Your task to perform on an android device: open app "LiveIn - Share Your Moment" Image 0: 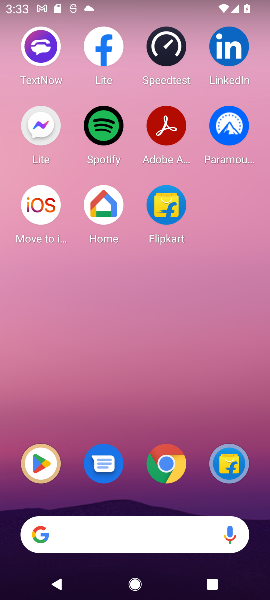
Step 0: drag from (108, 536) to (113, 63)
Your task to perform on an android device: open app "LiveIn - Share Your Moment" Image 1: 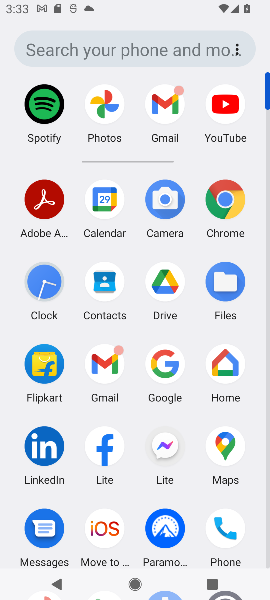
Step 1: drag from (136, 462) to (137, 166)
Your task to perform on an android device: open app "LiveIn - Share Your Moment" Image 2: 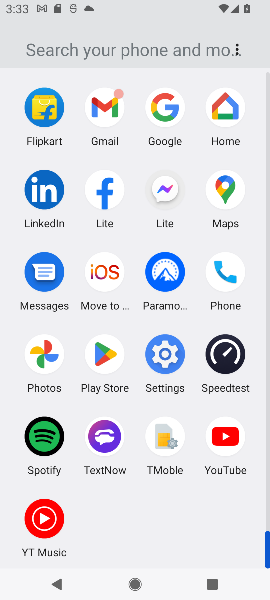
Step 2: click (107, 356)
Your task to perform on an android device: open app "LiveIn - Share Your Moment" Image 3: 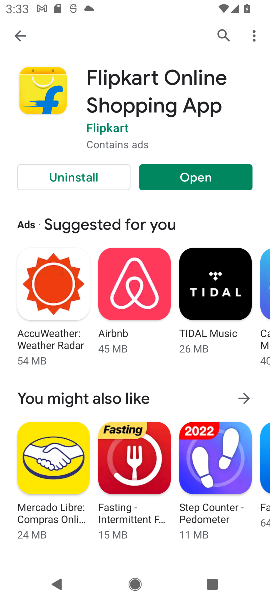
Step 3: click (221, 32)
Your task to perform on an android device: open app "LiveIn - Share Your Moment" Image 4: 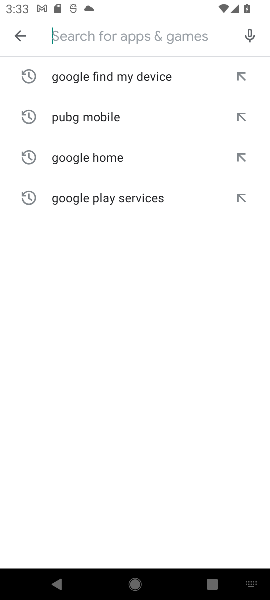
Step 4: click (126, 36)
Your task to perform on an android device: open app "LiveIn - Share Your Moment" Image 5: 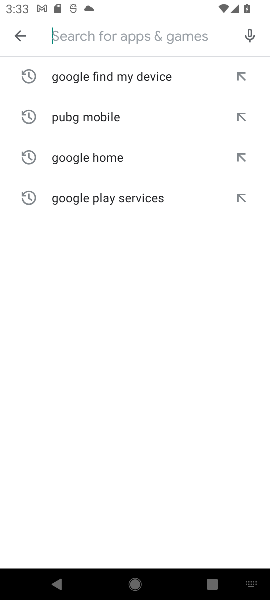
Step 5: type "LiveIn - Share Your Moment"
Your task to perform on an android device: open app "LiveIn - Share Your Moment" Image 6: 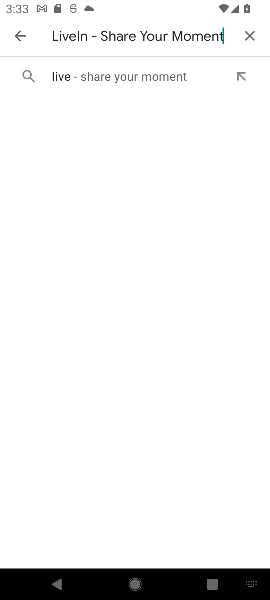
Step 6: click (113, 75)
Your task to perform on an android device: open app "LiveIn - Share Your Moment" Image 7: 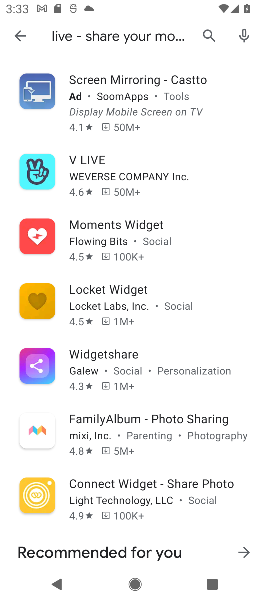
Step 7: task complete